Your task to perform on an android device: Open display settings Image 0: 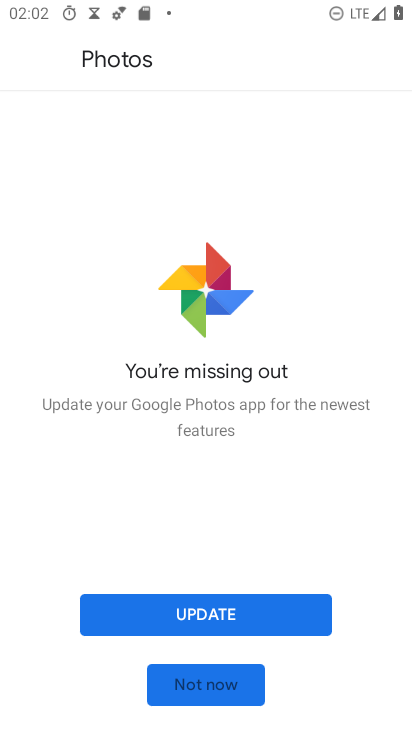
Step 0: press home button
Your task to perform on an android device: Open display settings Image 1: 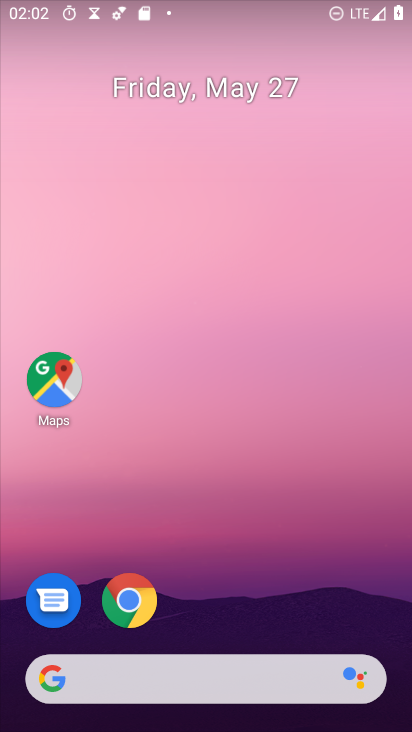
Step 1: drag from (207, 518) to (216, 26)
Your task to perform on an android device: Open display settings Image 2: 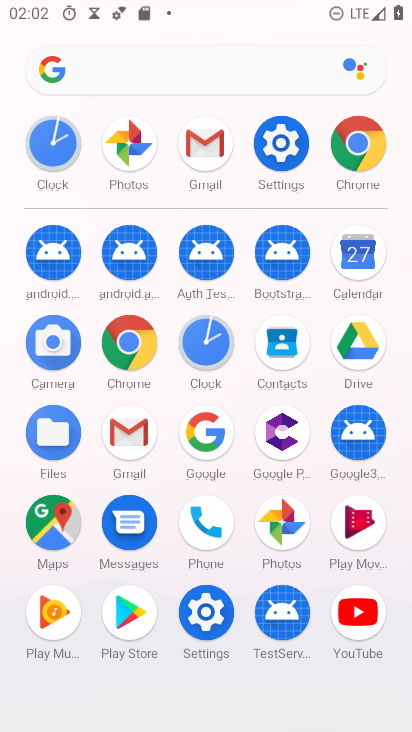
Step 2: click (287, 143)
Your task to perform on an android device: Open display settings Image 3: 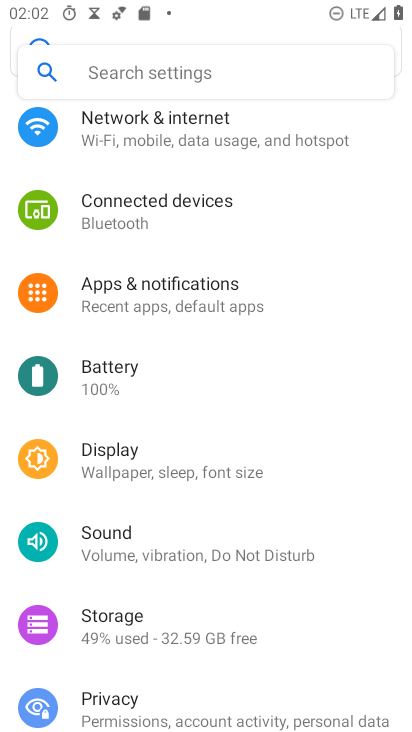
Step 3: click (183, 471)
Your task to perform on an android device: Open display settings Image 4: 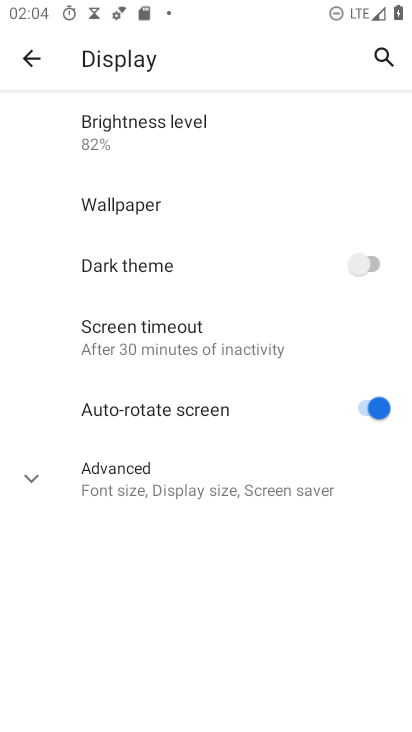
Step 4: task complete